Your task to perform on an android device: toggle sleep mode Image 0: 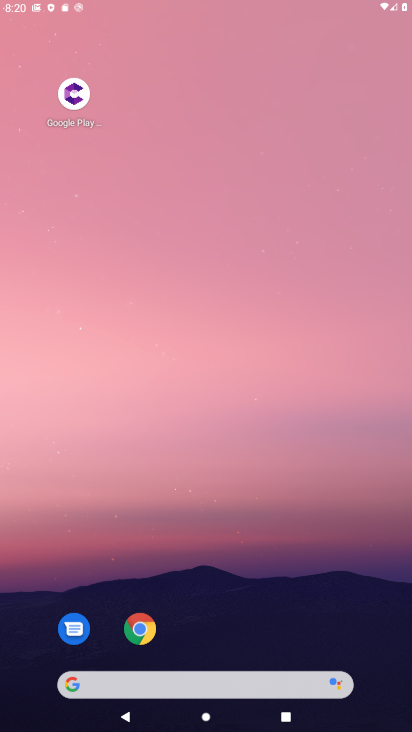
Step 0: click (300, 12)
Your task to perform on an android device: toggle sleep mode Image 1: 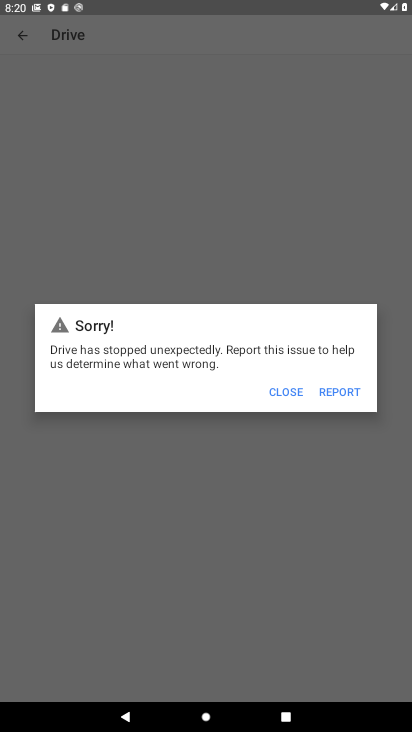
Step 1: drag from (238, 665) to (261, 2)
Your task to perform on an android device: toggle sleep mode Image 2: 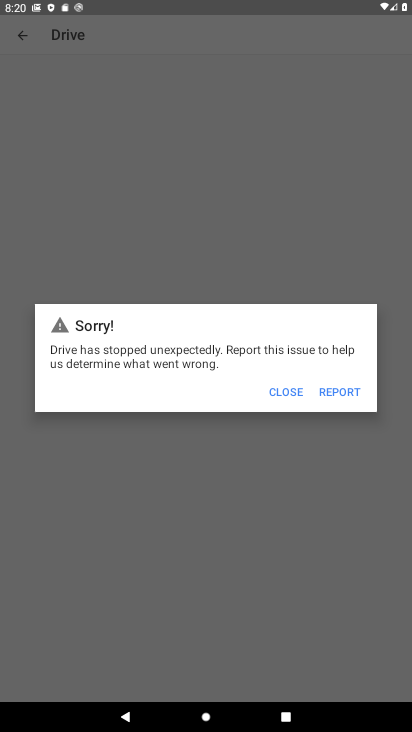
Step 2: press home button
Your task to perform on an android device: toggle sleep mode Image 3: 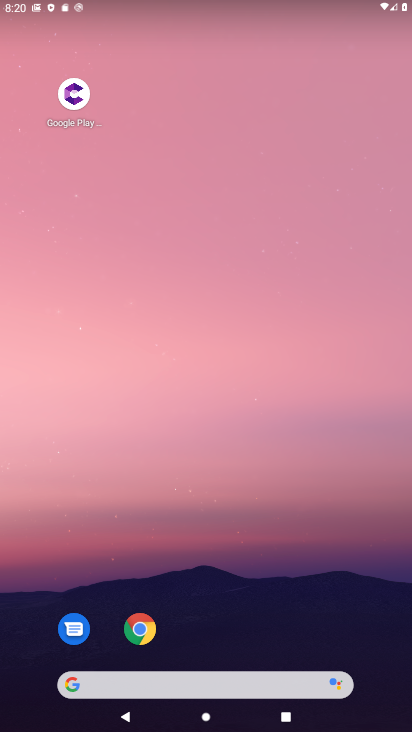
Step 3: drag from (216, 643) to (219, 27)
Your task to perform on an android device: toggle sleep mode Image 4: 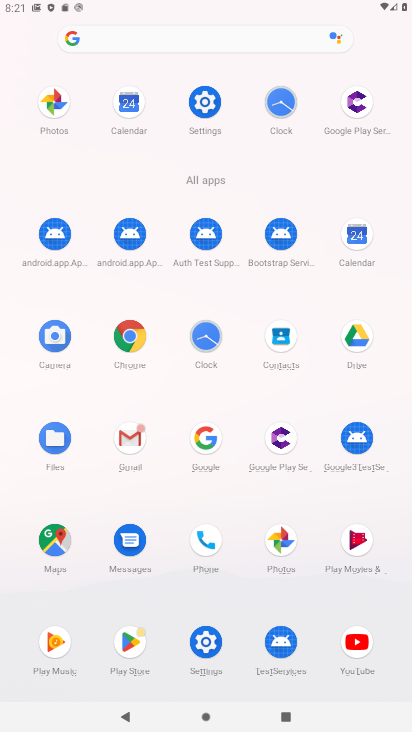
Step 4: click (204, 666)
Your task to perform on an android device: toggle sleep mode Image 5: 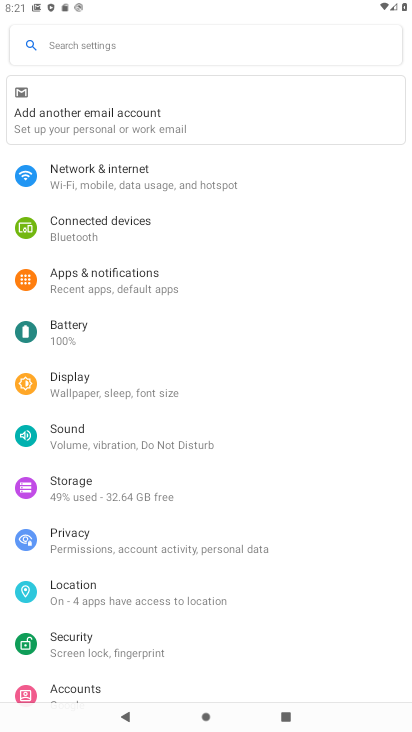
Step 5: click (154, 52)
Your task to perform on an android device: toggle sleep mode Image 6: 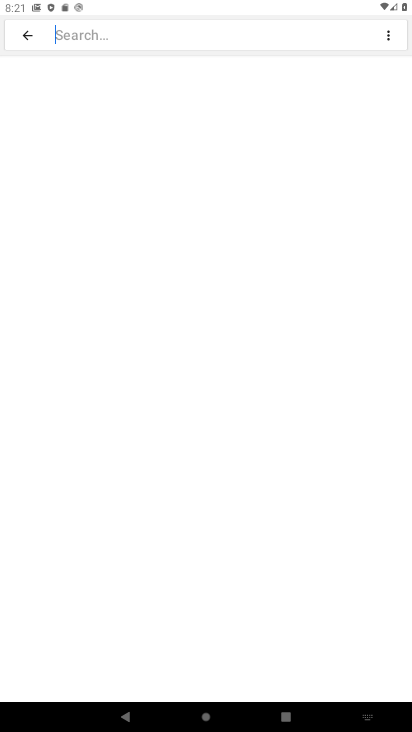
Step 6: type ""
Your task to perform on an android device: toggle sleep mode Image 7: 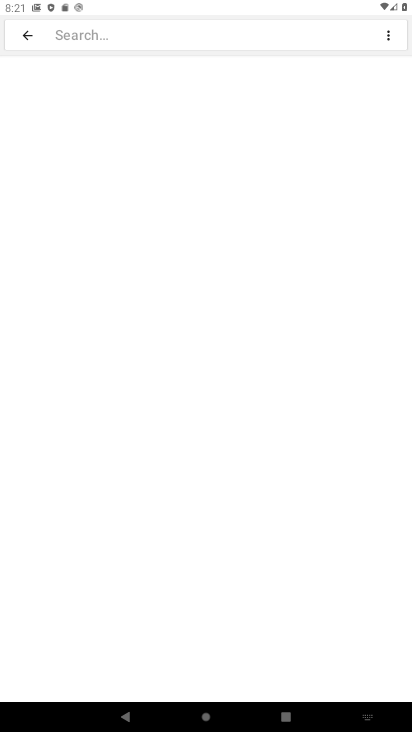
Step 7: type ""
Your task to perform on an android device: toggle sleep mode Image 8: 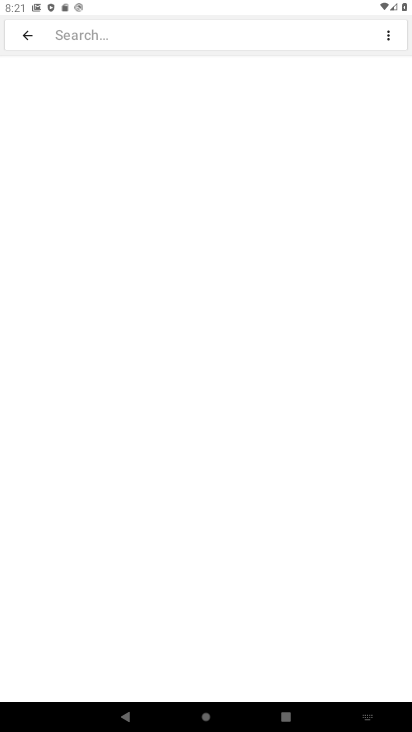
Step 8: type "sleep mode"
Your task to perform on an android device: toggle sleep mode Image 9: 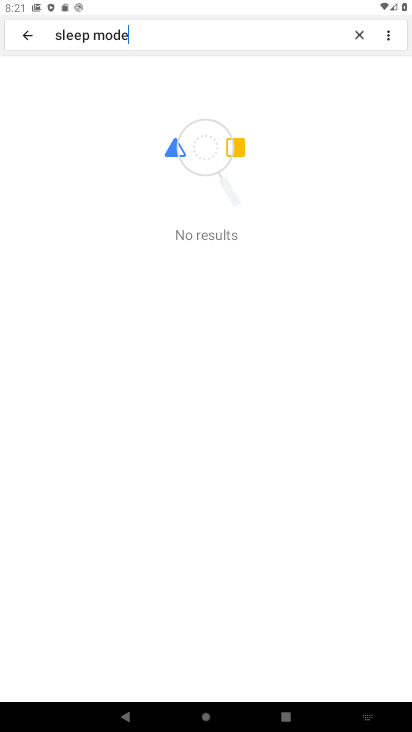
Step 9: task complete